Your task to perform on an android device: What's on my calendar tomorrow? Image 0: 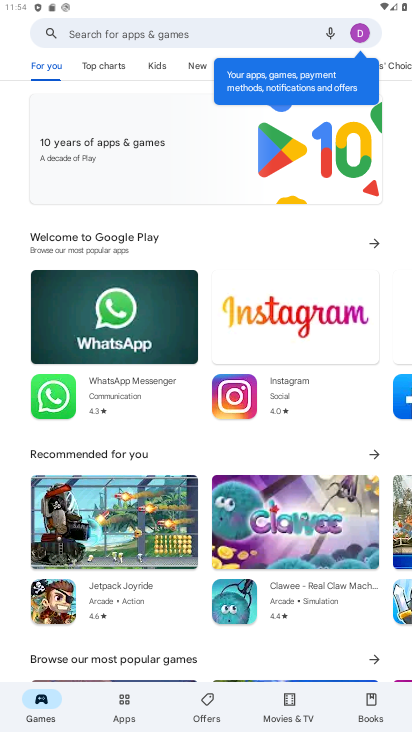
Step 0: press home button
Your task to perform on an android device: What's on my calendar tomorrow? Image 1: 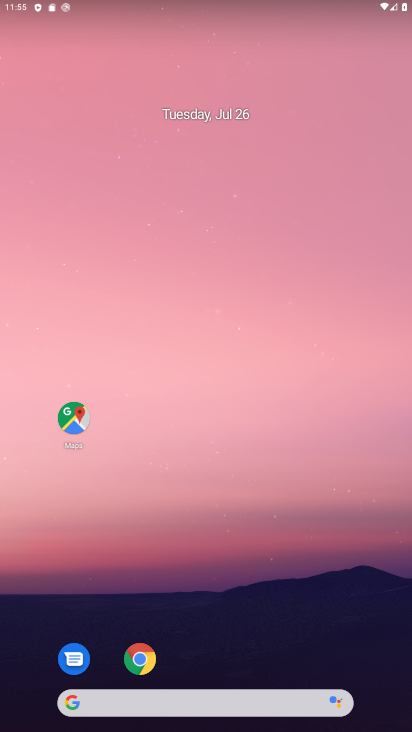
Step 1: drag from (256, 505) to (230, 7)
Your task to perform on an android device: What's on my calendar tomorrow? Image 2: 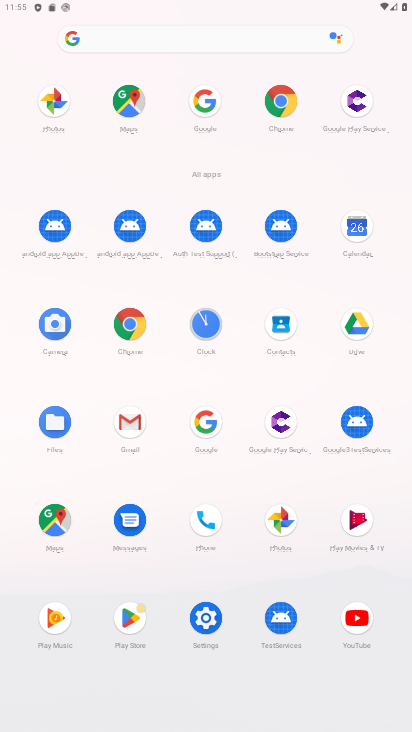
Step 2: click (353, 216)
Your task to perform on an android device: What's on my calendar tomorrow? Image 3: 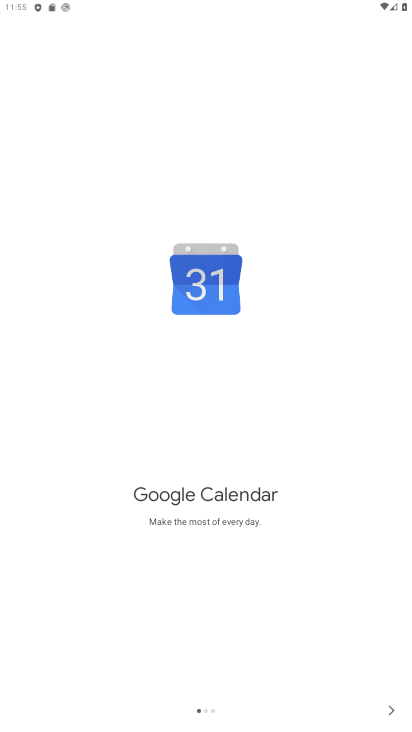
Step 3: click (397, 707)
Your task to perform on an android device: What's on my calendar tomorrow? Image 4: 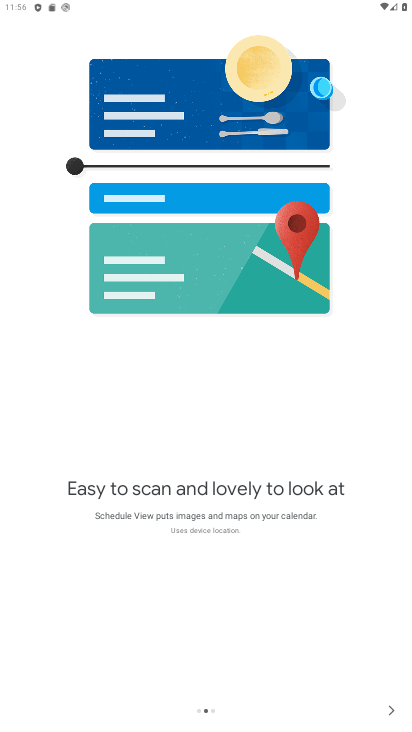
Step 4: click (385, 712)
Your task to perform on an android device: What's on my calendar tomorrow? Image 5: 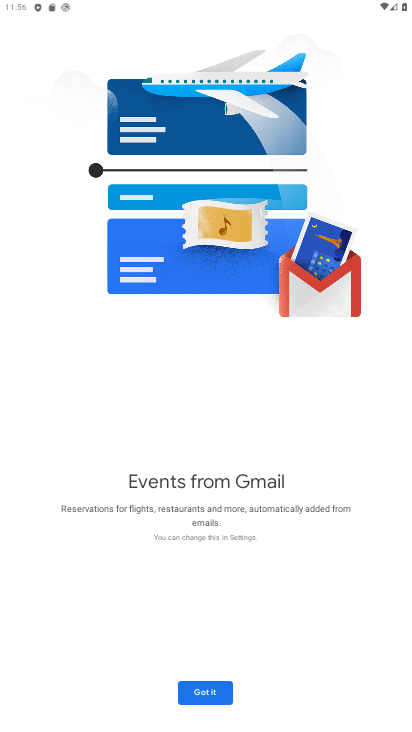
Step 5: click (213, 688)
Your task to perform on an android device: What's on my calendar tomorrow? Image 6: 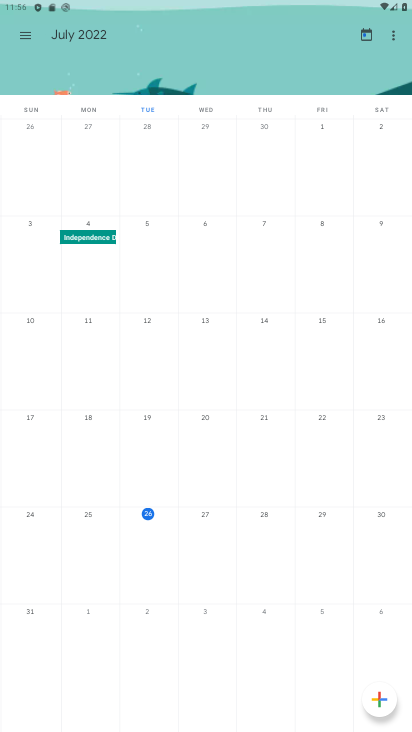
Step 6: click (200, 511)
Your task to perform on an android device: What's on my calendar tomorrow? Image 7: 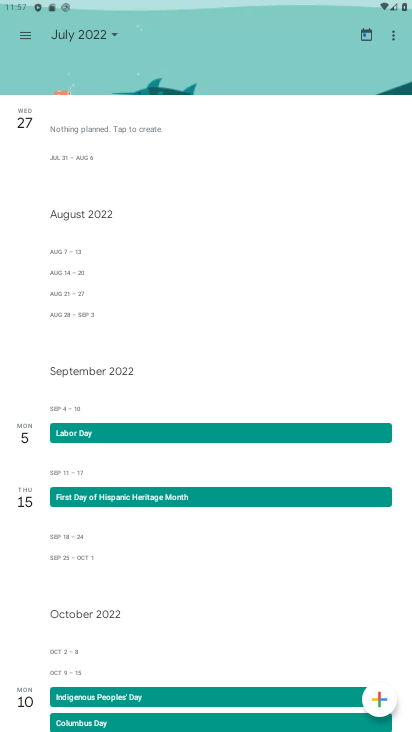
Step 7: task complete